Your task to perform on an android device: Open battery settings Image 0: 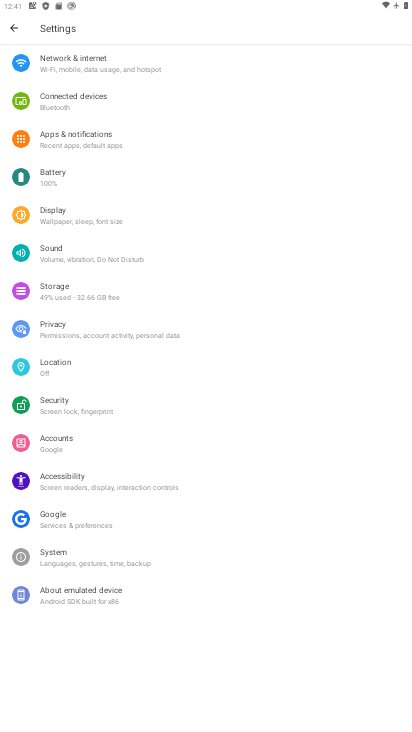
Step 0: press home button
Your task to perform on an android device: Open battery settings Image 1: 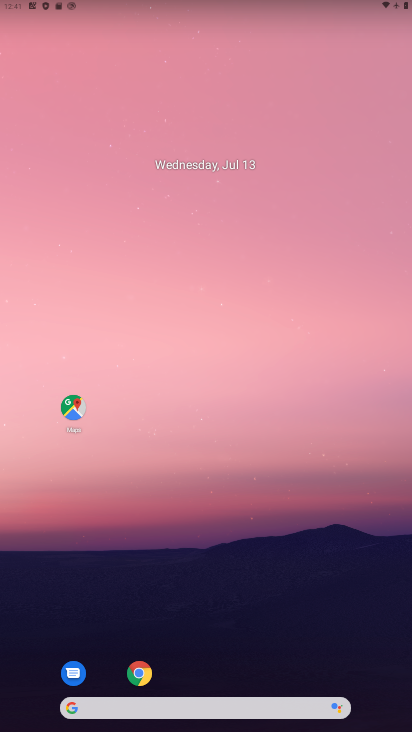
Step 1: drag from (250, 652) to (259, 177)
Your task to perform on an android device: Open battery settings Image 2: 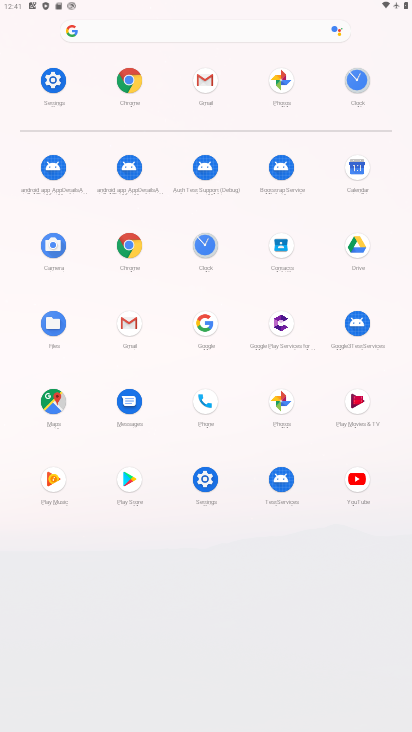
Step 2: click (54, 92)
Your task to perform on an android device: Open battery settings Image 3: 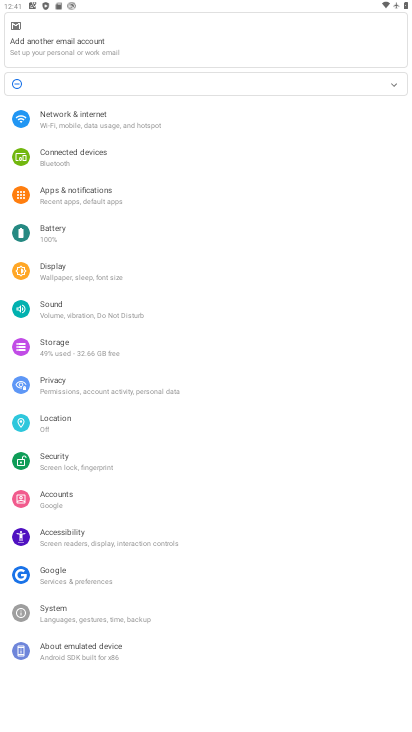
Step 3: click (76, 236)
Your task to perform on an android device: Open battery settings Image 4: 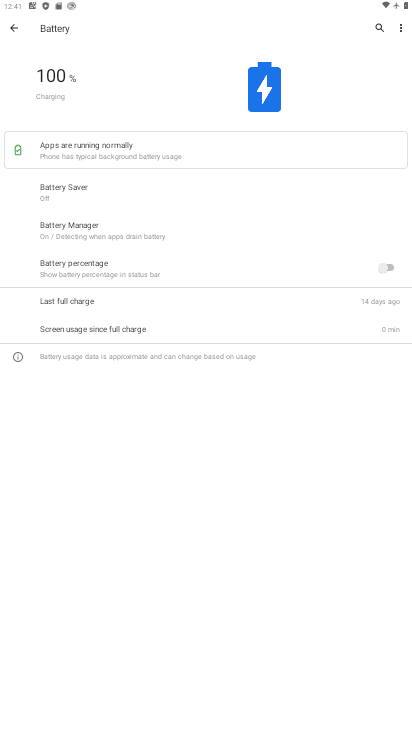
Step 4: task complete